Your task to perform on an android device: toggle wifi Image 0: 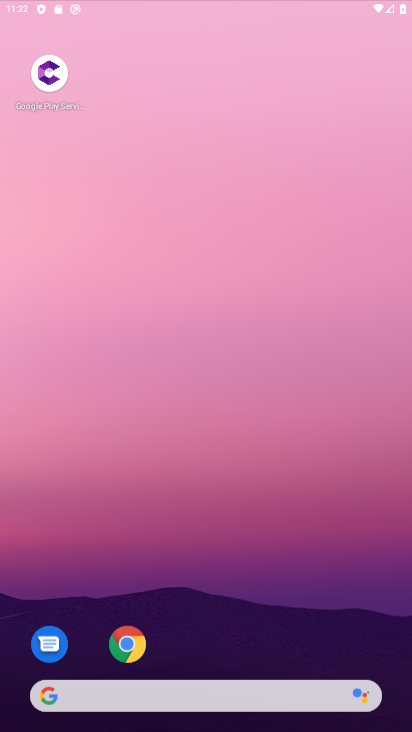
Step 0: click (222, 108)
Your task to perform on an android device: toggle wifi Image 1: 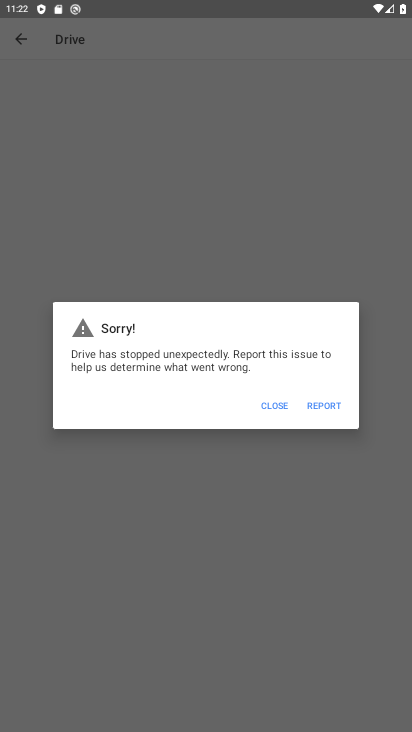
Step 1: press home button
Your task to perform on an android device: toggle wifi Image 2: 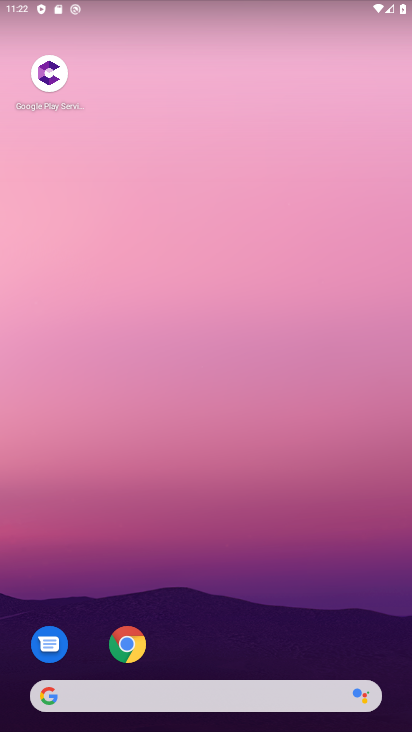
Step 2: drag from (214, 647) to (214, 104)
Your task to perform on an android device: toggle wifi Image 3: 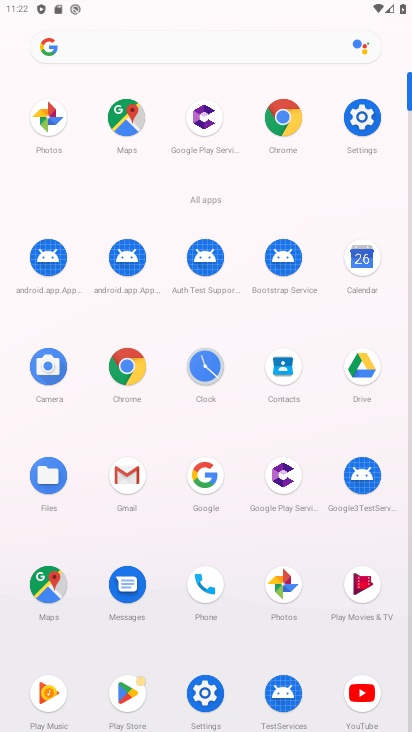
Step 3: click (359, 127)
Your task to perform on an android device: toggle wifi Image 4: 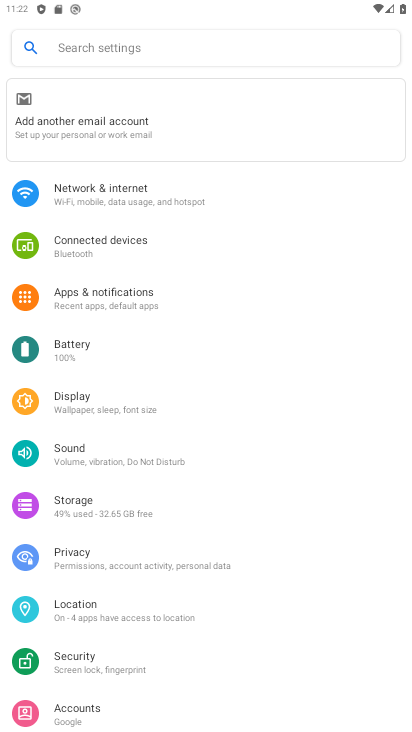
Step 4: click (127, 191)
Your task to perform on an android device: toggle wifi Image 5: 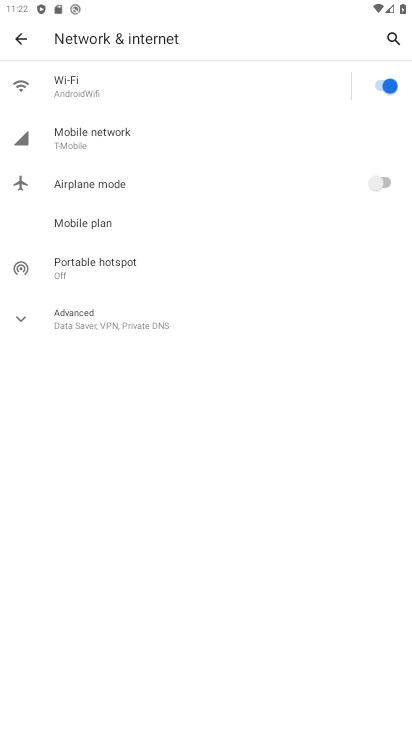
Step 5: click (382, 92)
Your task to perform on an android device: toggle wifi Image 6: 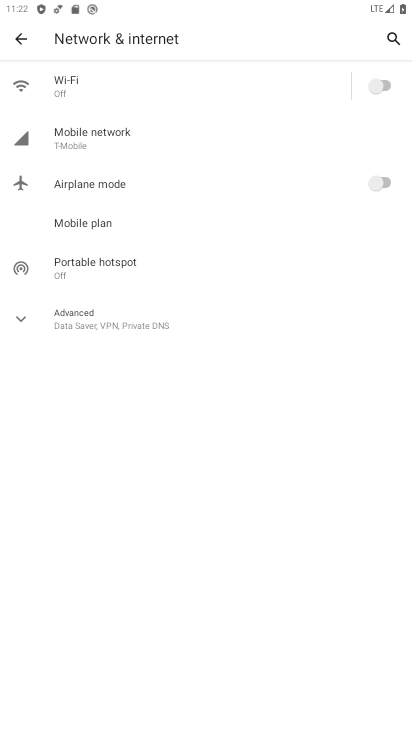
Step 6: task complete